Your task to perform on an android device: Go to CNN.com Image 0: 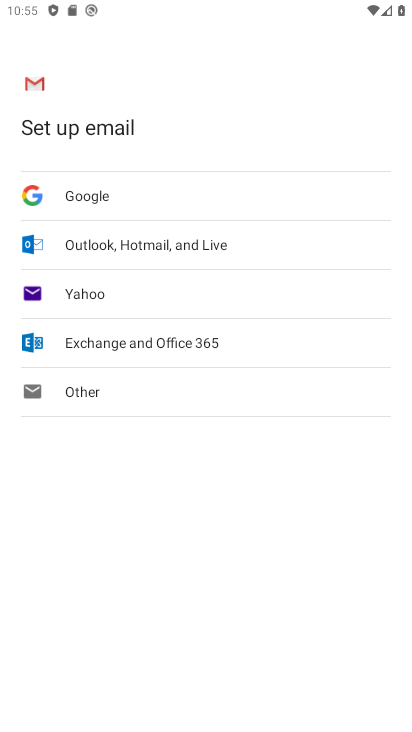
Step 0: press home button
Your task to perform on an android device: Go to CNN.com Image 1: 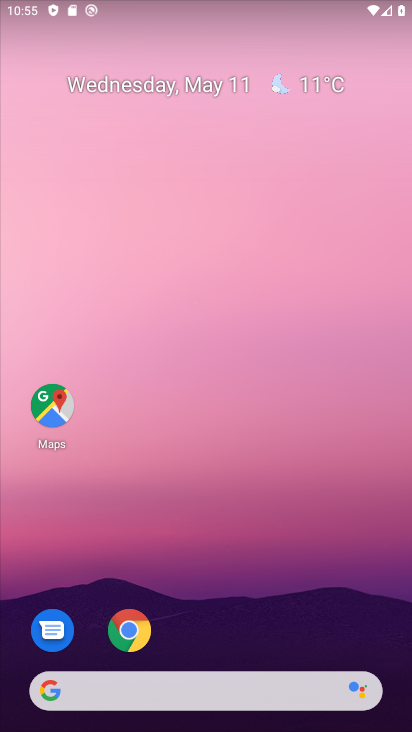
Step 1: click (116, 632)
Your task to perform on an android device: Go to CNN.com Image 2: 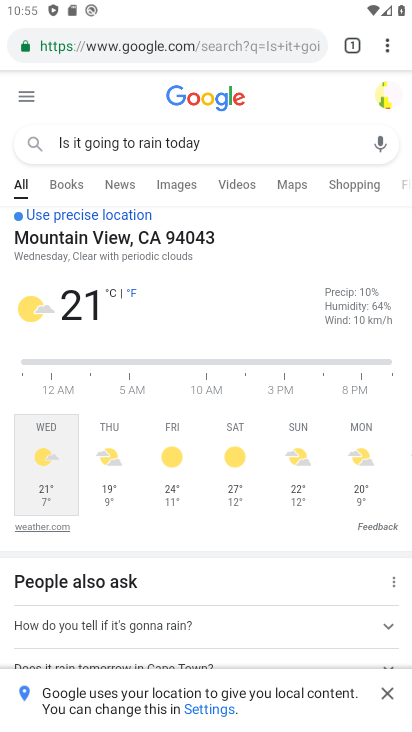
Step 2: click (84, 46)
Your task to perform on an android device: Go to CNN.com Image 3: 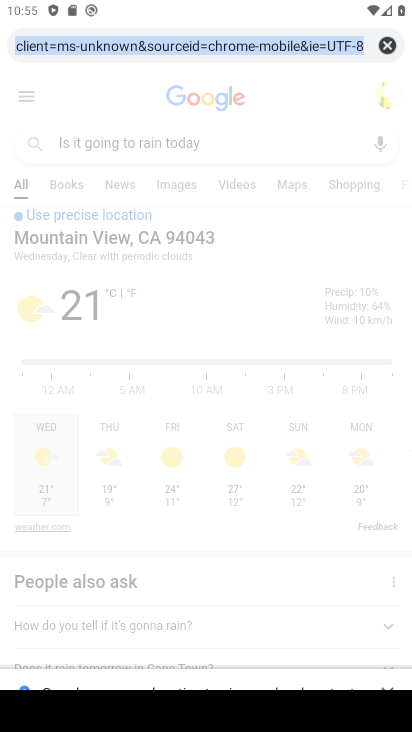
Step 3: type "CNN.com"
Your task to perform on an android device: Go to CNN.com Image 4: 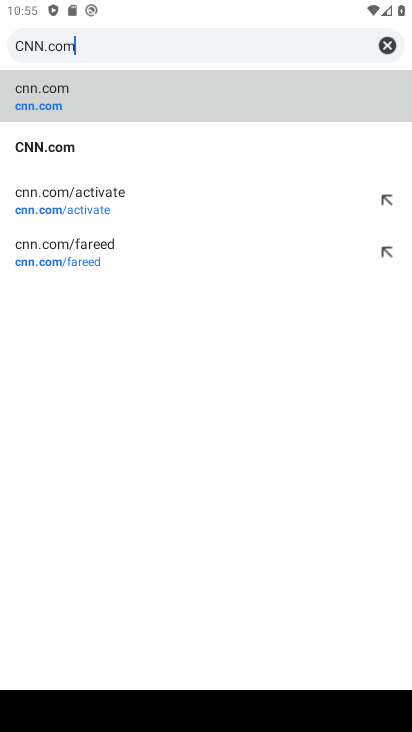
Step 4: click (71, 146)
Your task to perform on an android device: Go to CNN.com Image 5: 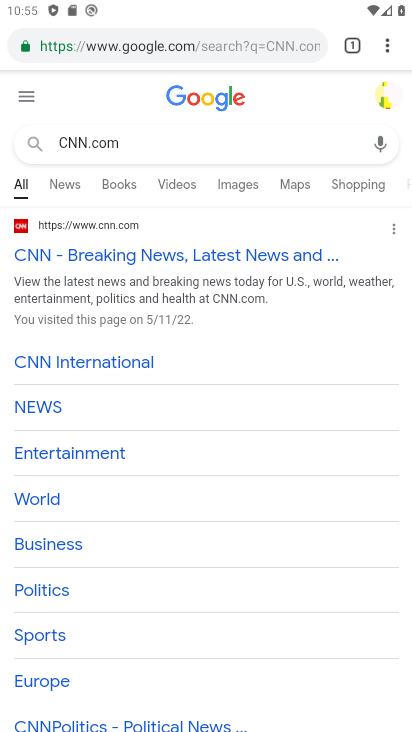
Step 5: task complete